Your task to perform on an android device: toggle notification dots Image 0: 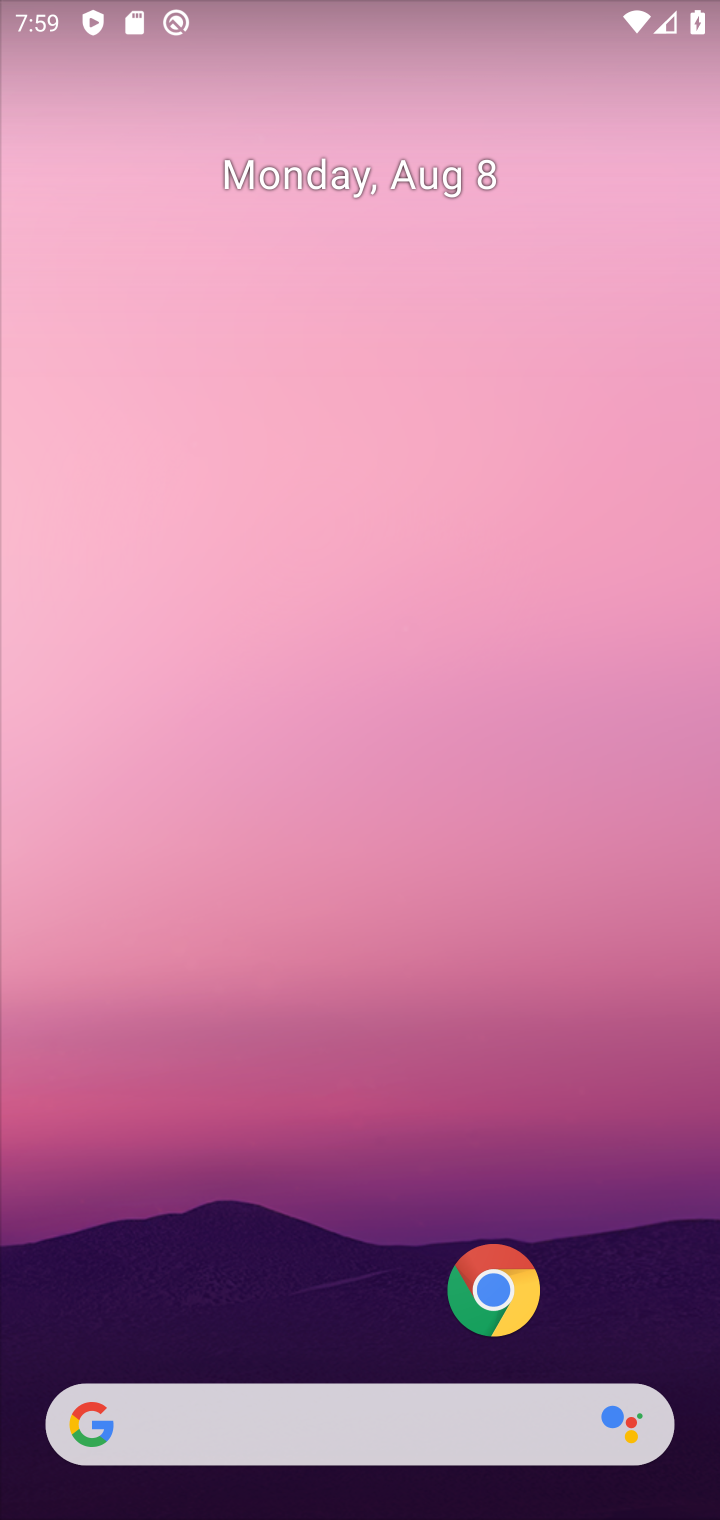
Step 0: drag from (256, 1064) to (154, 460)
Your task to perform on an android device: toggle notification dots Image 1: 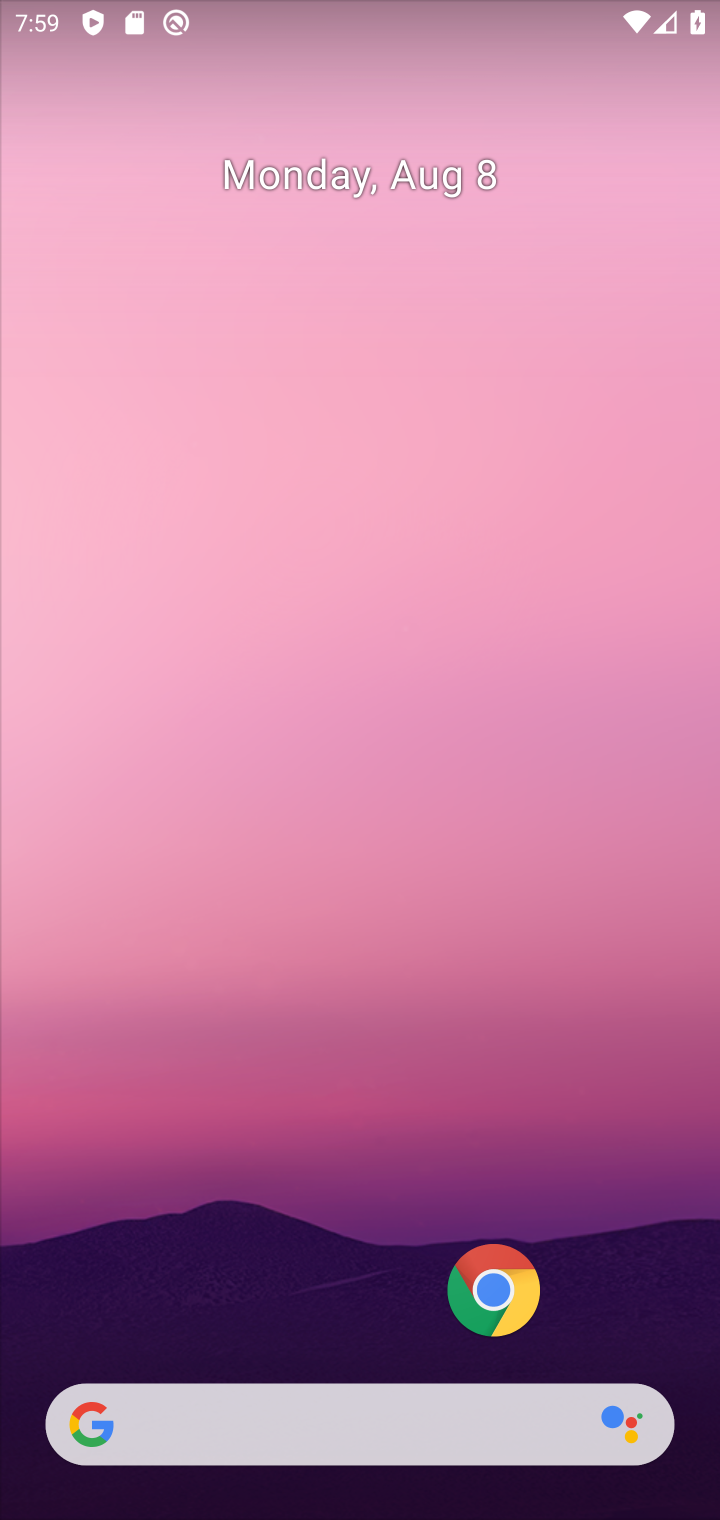
Step 1: drag from (210, 930) to (172, 42)
Your task to perform on an android device: toggle notification dots Image 2: 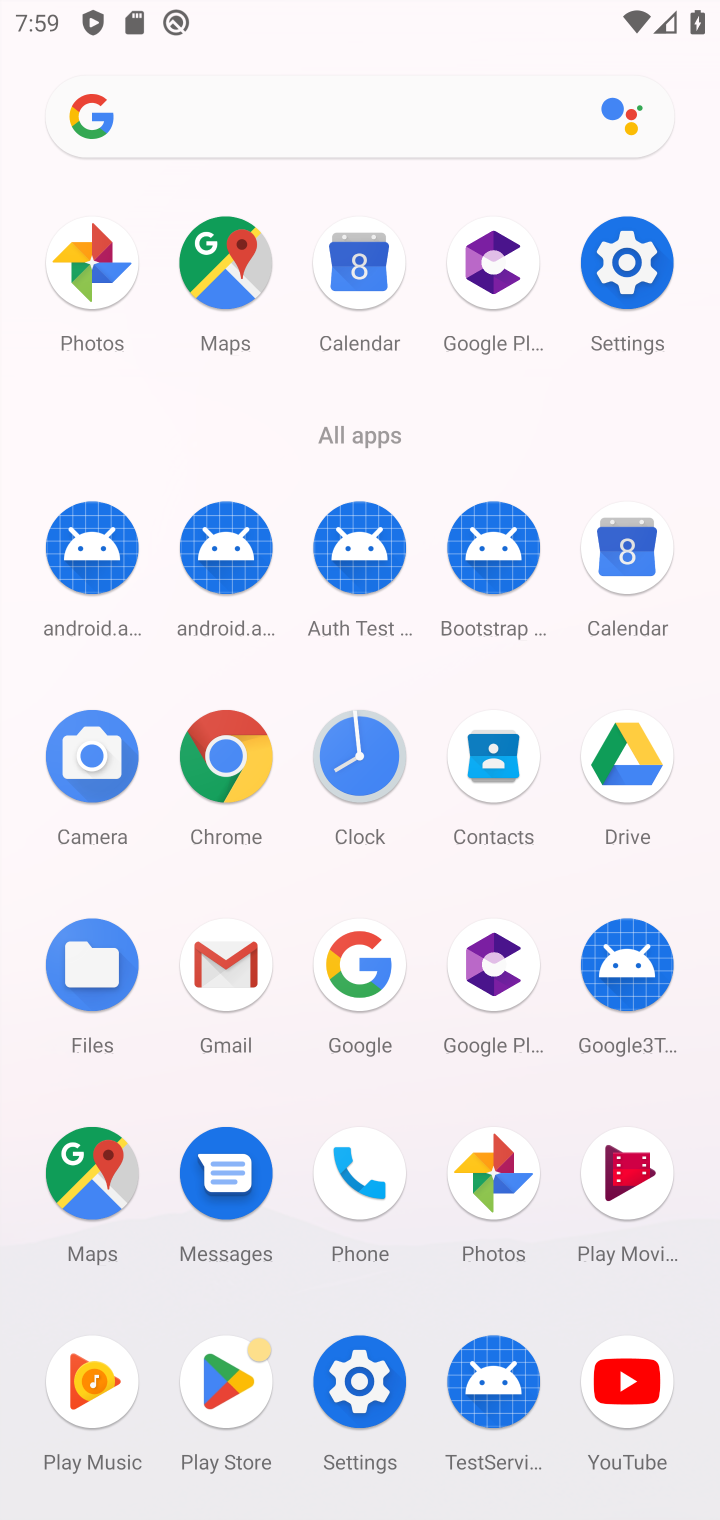
Step 2: click (618, 272)
Your task to perform on an android device: toggle notification dots Image 3: 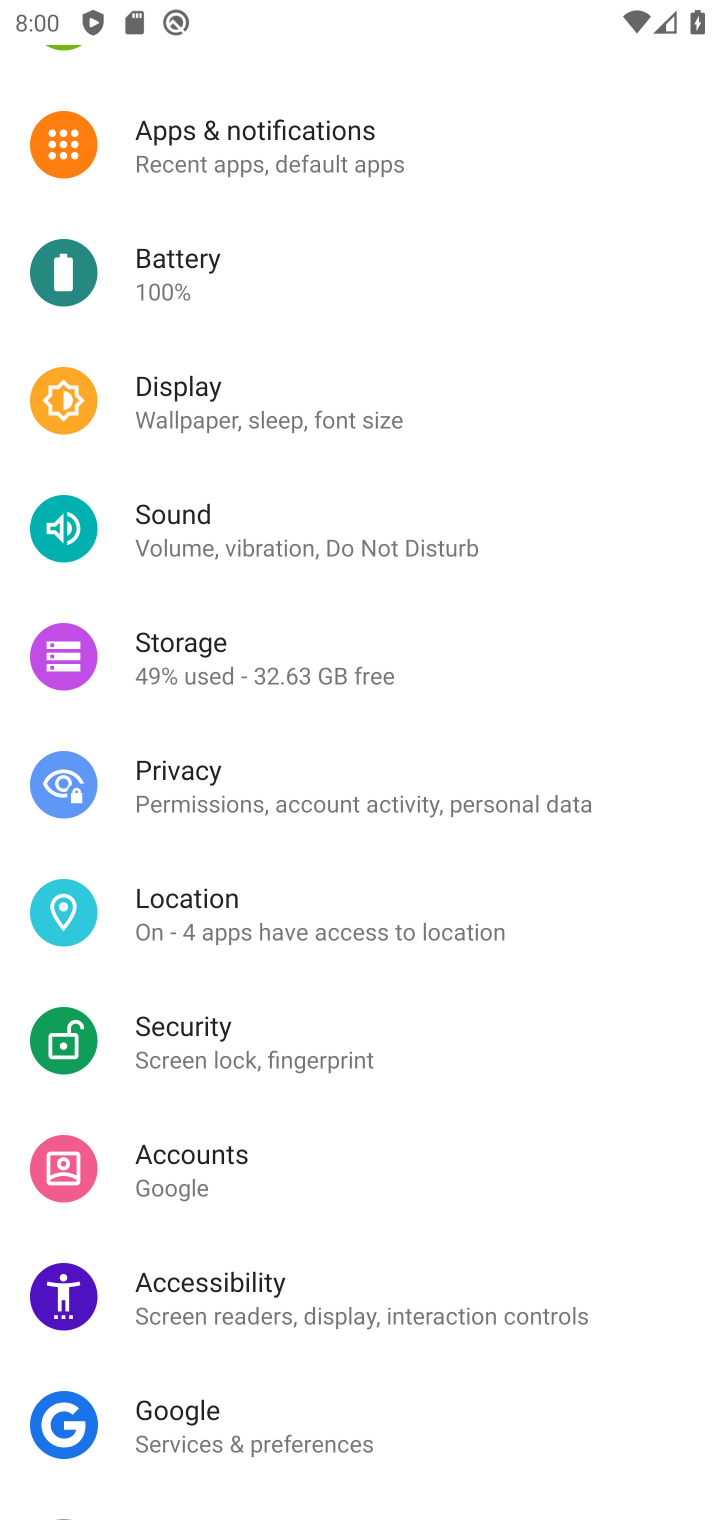
Step 3: drag from (408, 412) to (409, 1370)
Your task to perform on an android device: toggle notification dots Image 4: 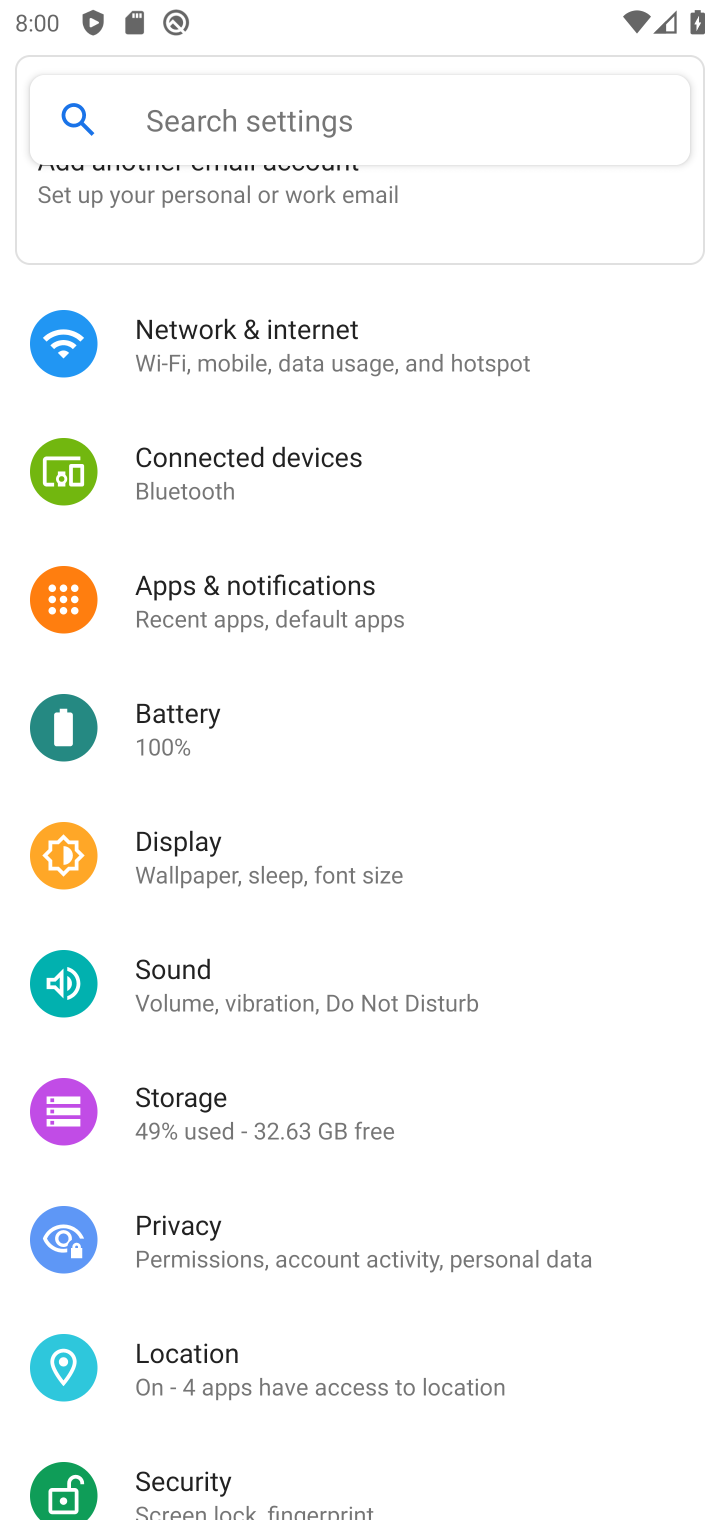
Step 4: click (338, 604)
Your task to perform on an android device: toggle notification dots Image 5: 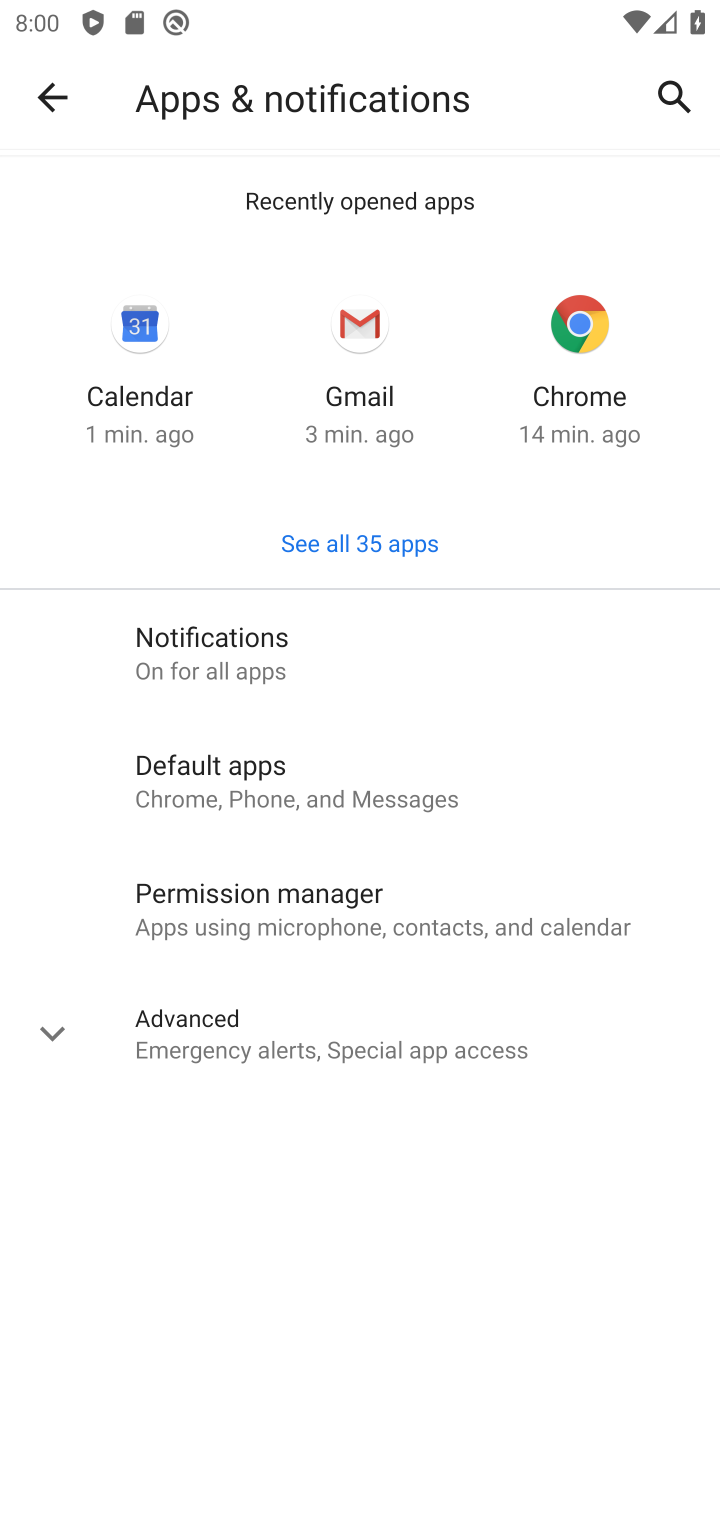
Step 5: click (263, 1056)
Your task to perform on an android device: toggle notification dots Image 6: 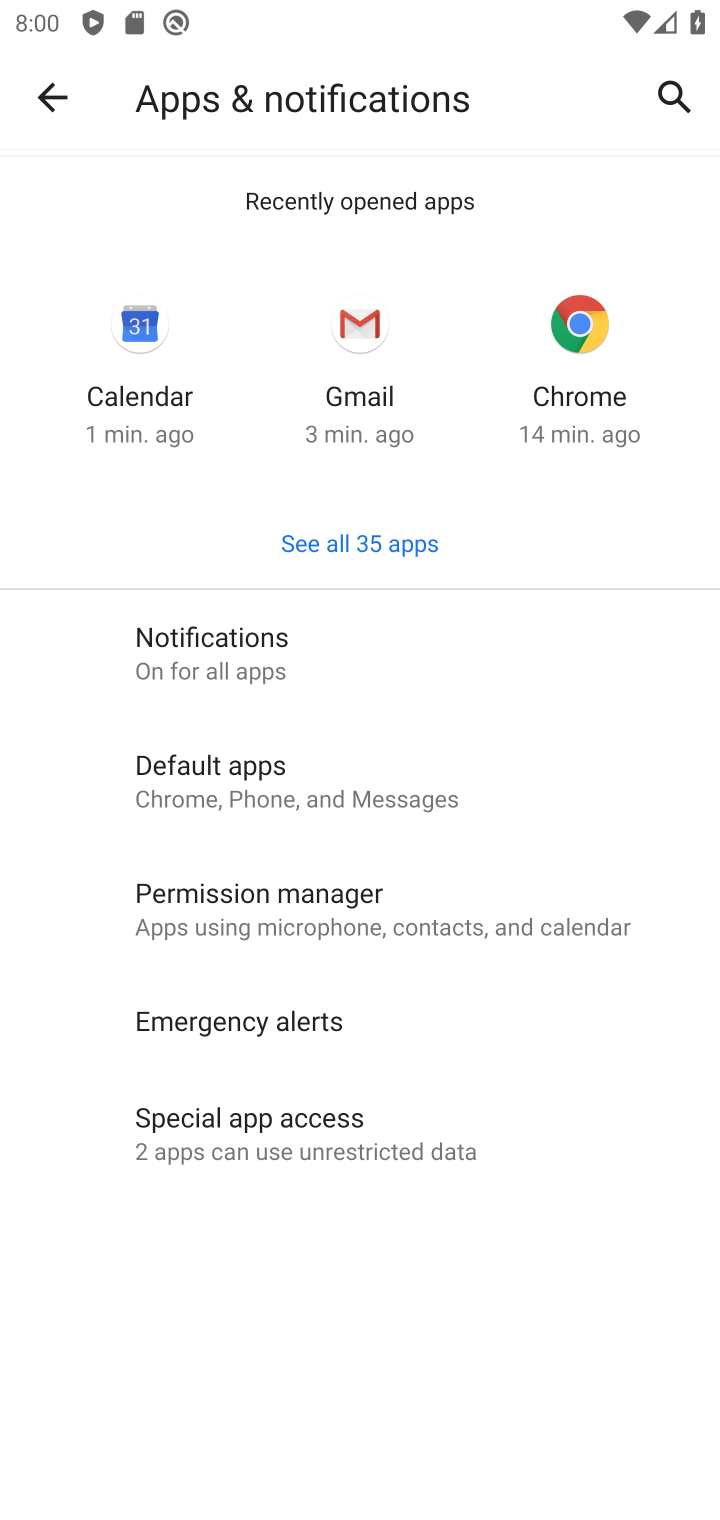
Step 6: click (203, 677)
Your task to perform on an android device: toggle notification dots Image 7: 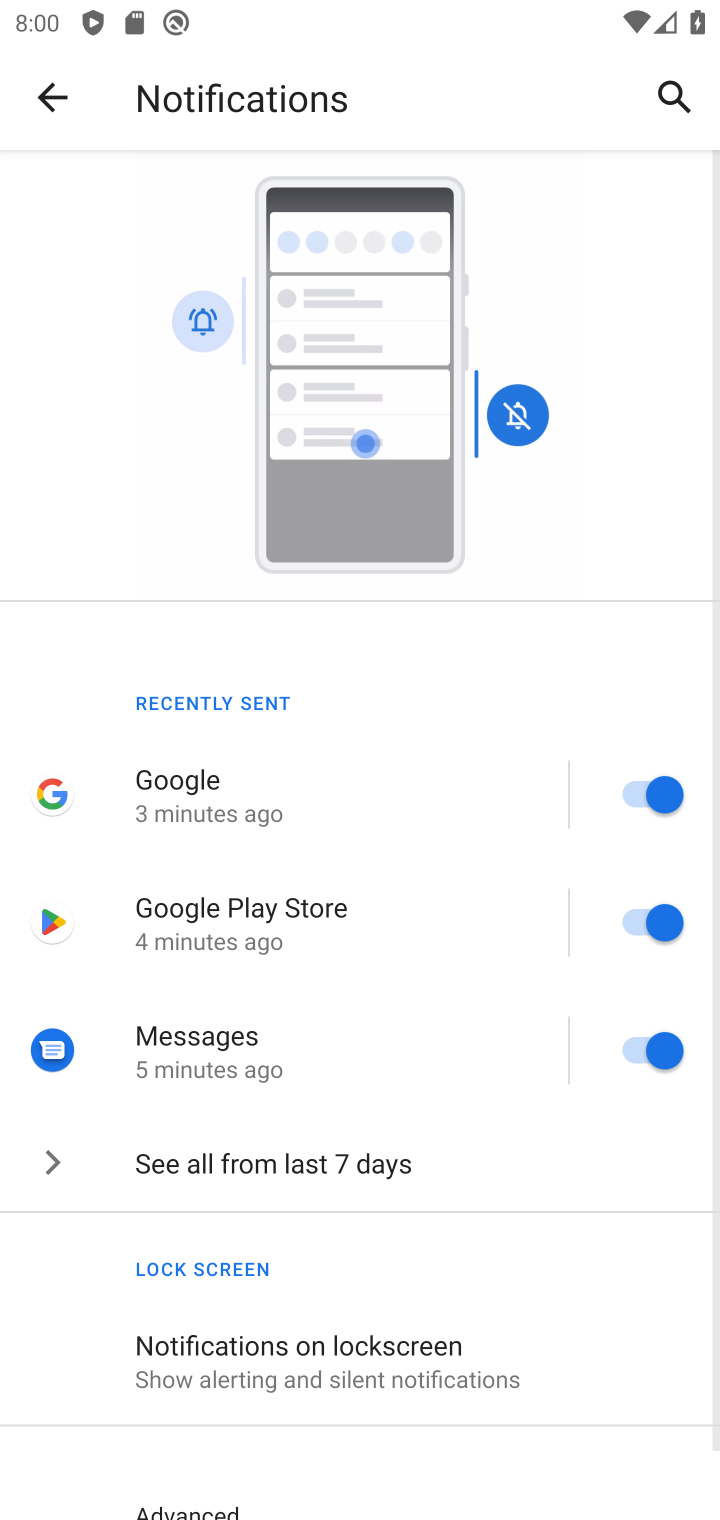
Step 7: drag from (324, 1290) to (418, 339)
Your task to perform on an android device: toggle notification dots Image 8: 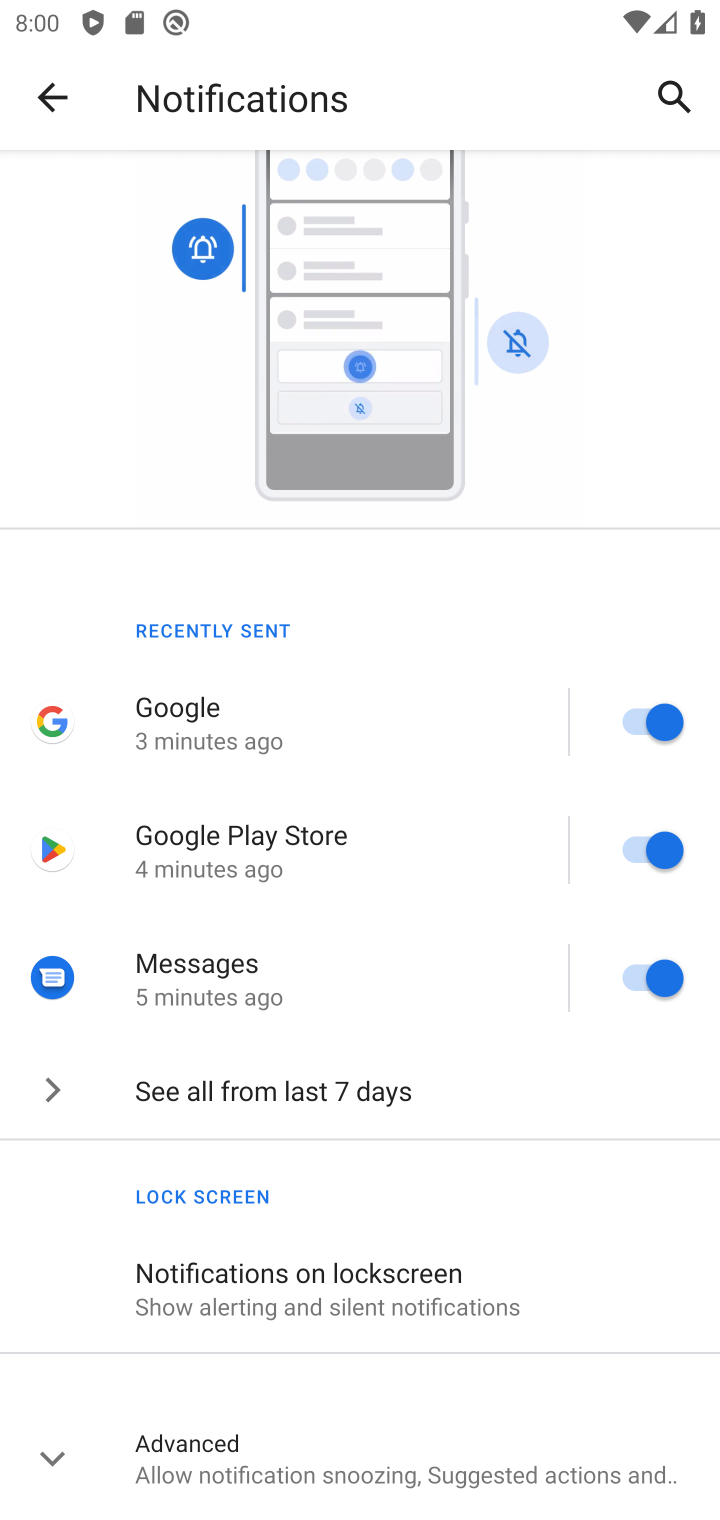
Step 8: click (282, 1470)
Your task to perform on an android device: toggle notification dots Image 9: 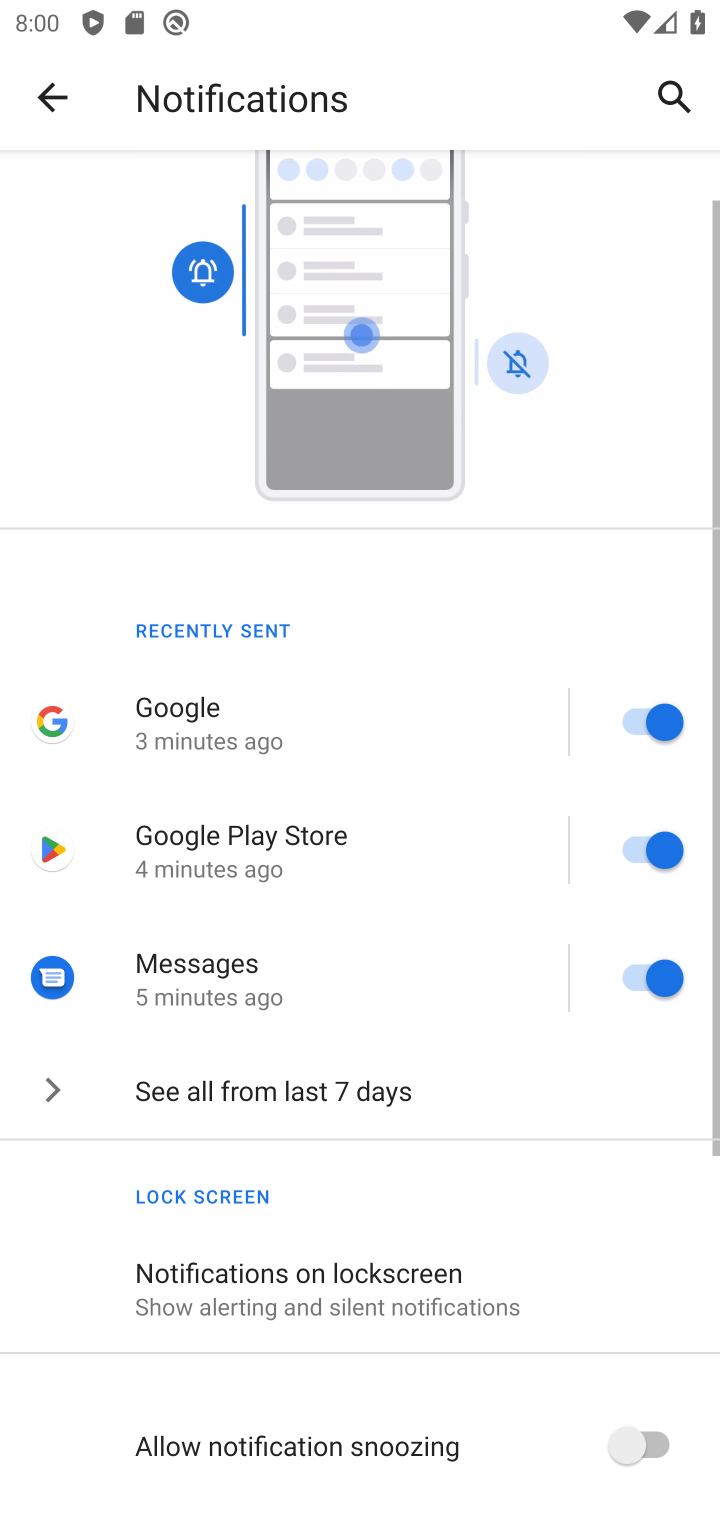
Step 9: drag from (240, 635) to (253, 511)
Your task to perform on an android device: toggle notification dots Image 10: 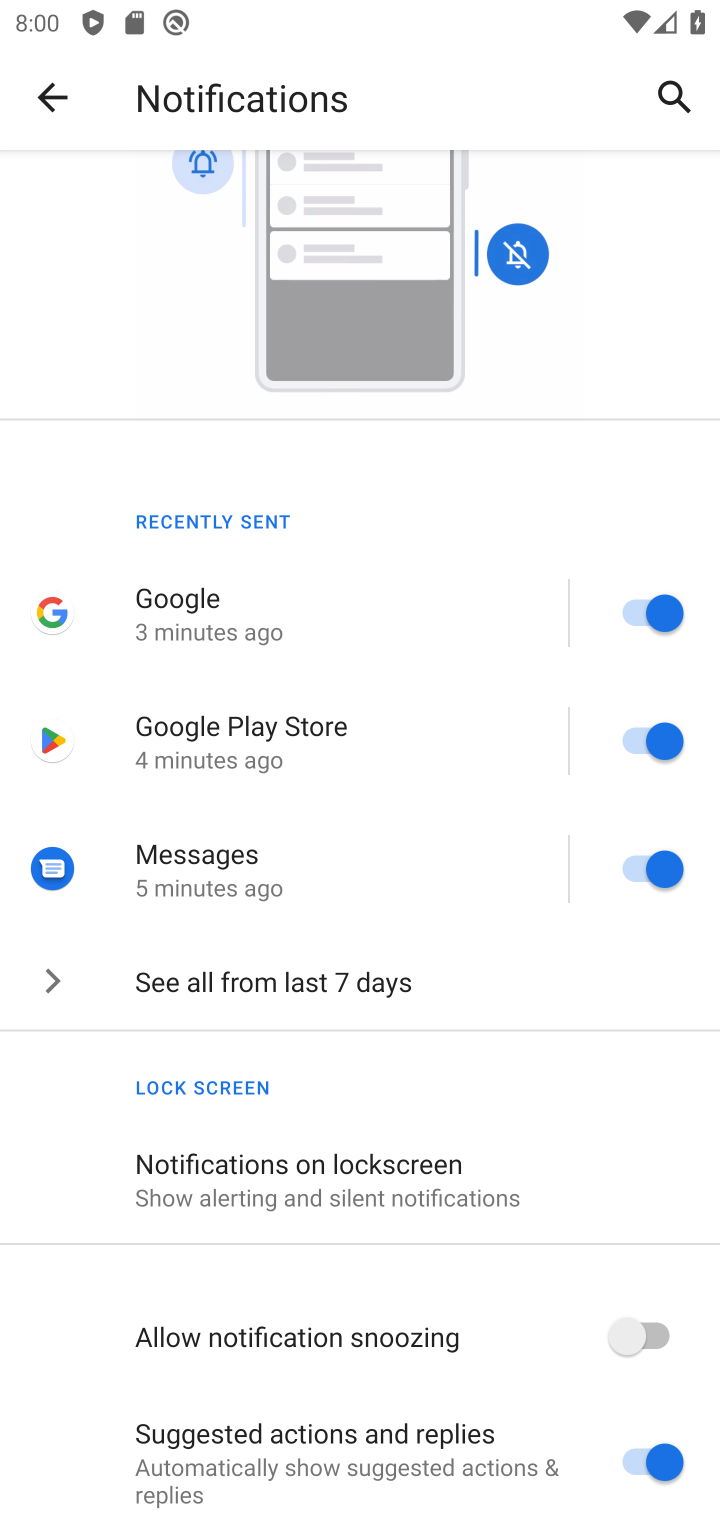
Step 10: drag from (336, 1404) to (308, 438)
Your task to perform on an android device: toggle notification dots Image 11: 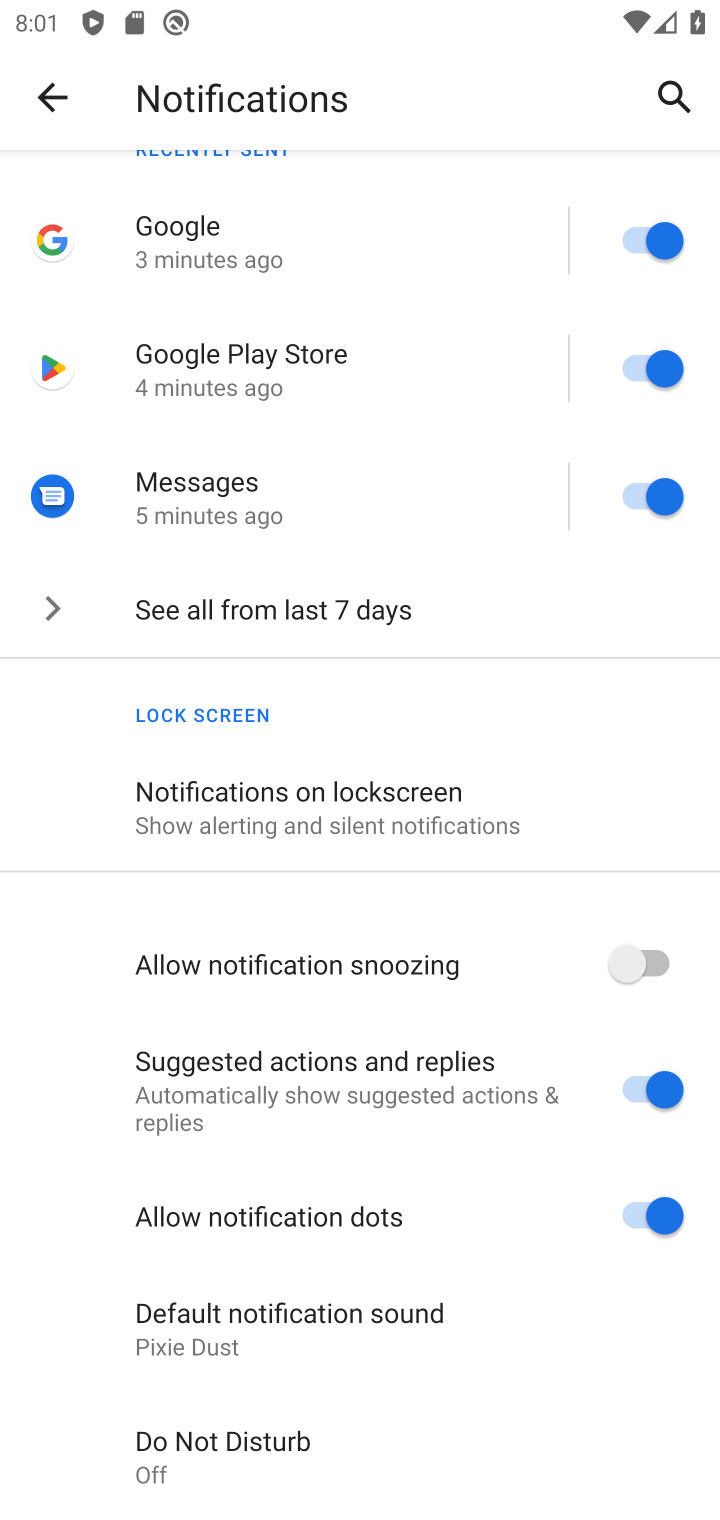
Step 11: click (660, 1218)
Your task to perform on an android device: toggle notification dots Image 12: 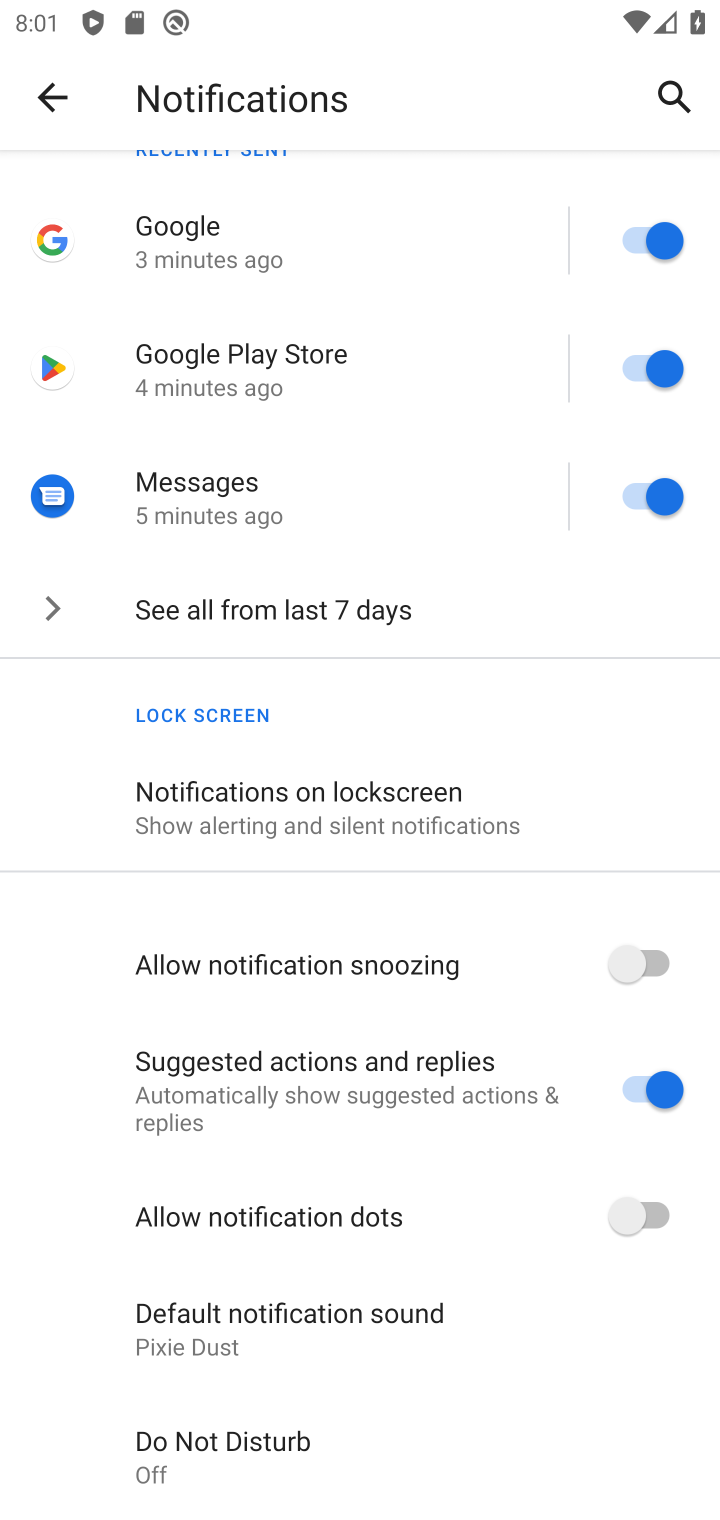
Step 12: task complete